Your task to perform on an android device: uninstall "Spotify: Music and Podcasts" Image 0: 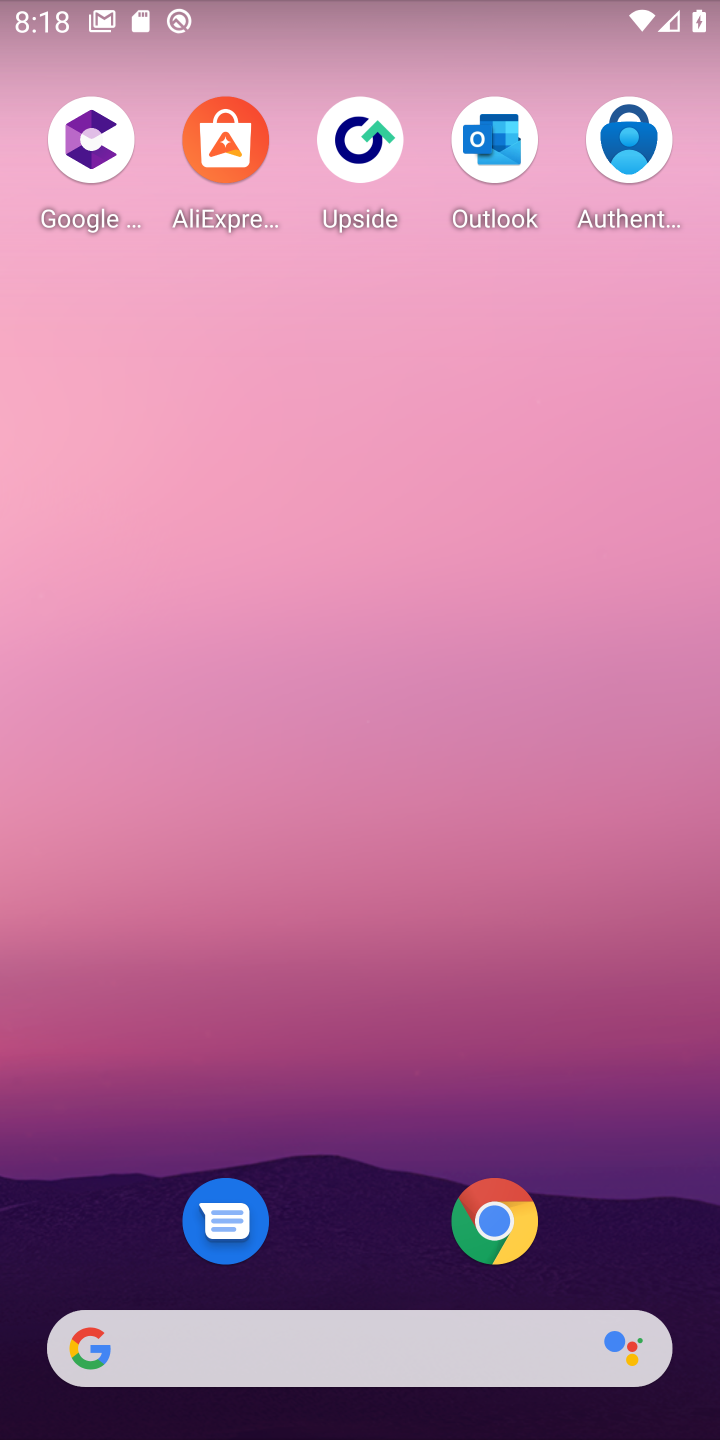
Step 0: drag from (399, 1223) to (399, 169)
Your task to perform on an android device: uninstall "Spotify: Music and Podcasts" Image 1: 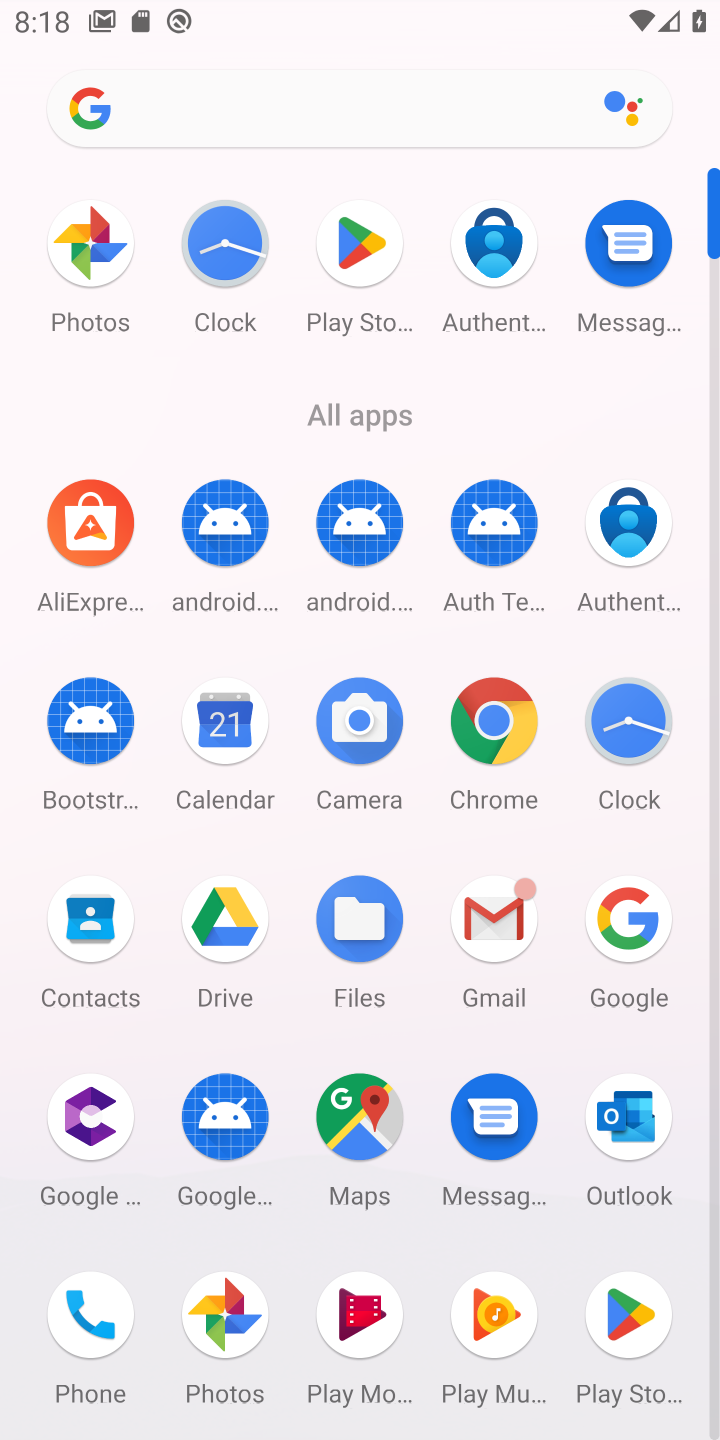
Step 1: click (634, 1318)
Your task to perform on an android device: uninstall "Spotify: Music and Podcasts" Image 2: 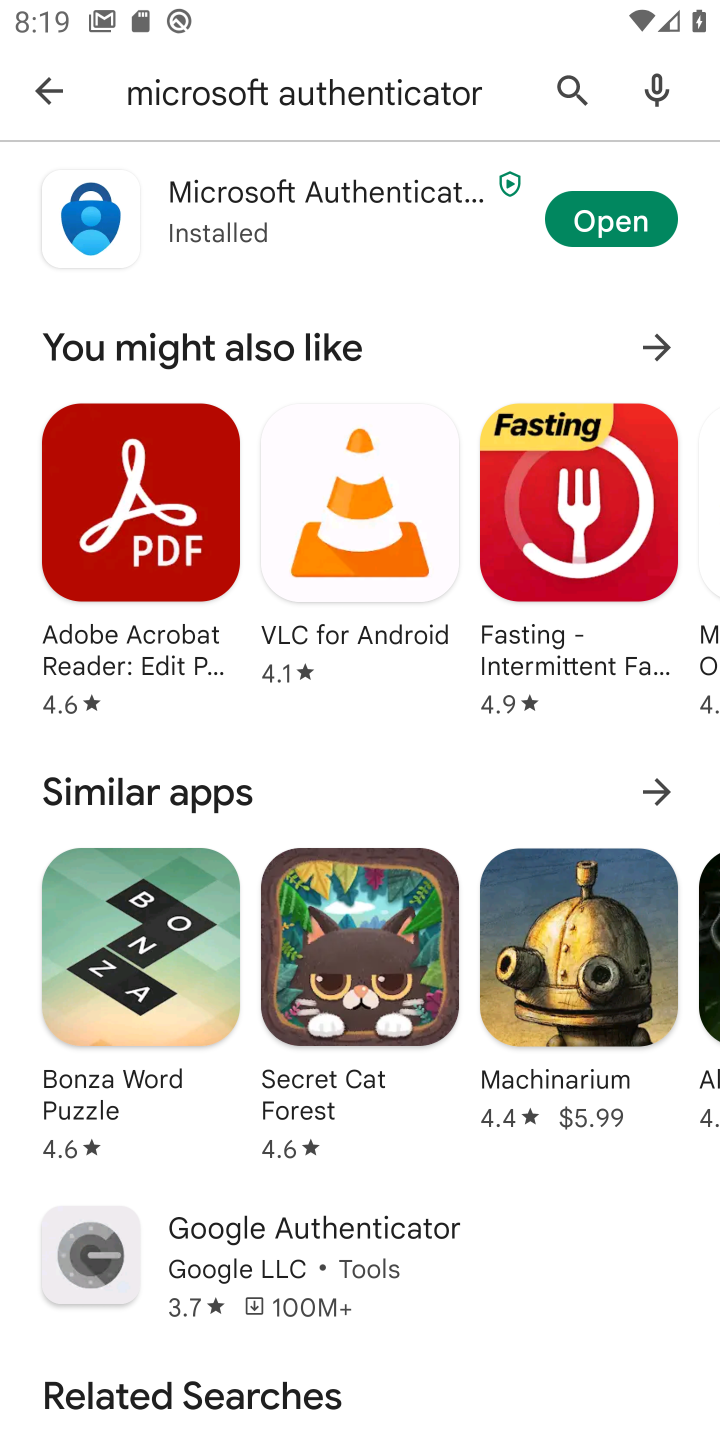
Step 2: click (570, 81)
Your task to perform on an android device: uninstall "Spotify: Music and Podcasts" Image 3: 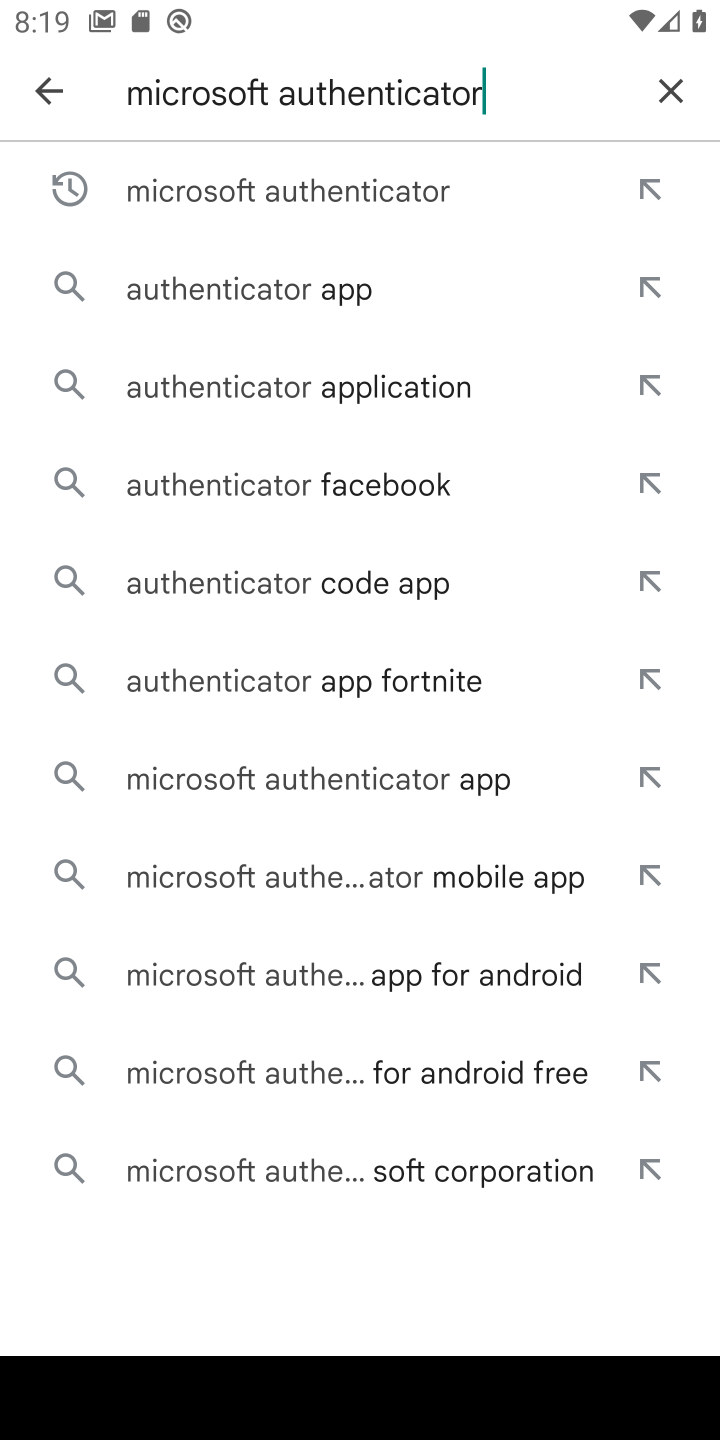
Step 3: click (676, 80)
Your task to perform on an android device: uninstall "Spotify: Music and Podcasts" Image 4: 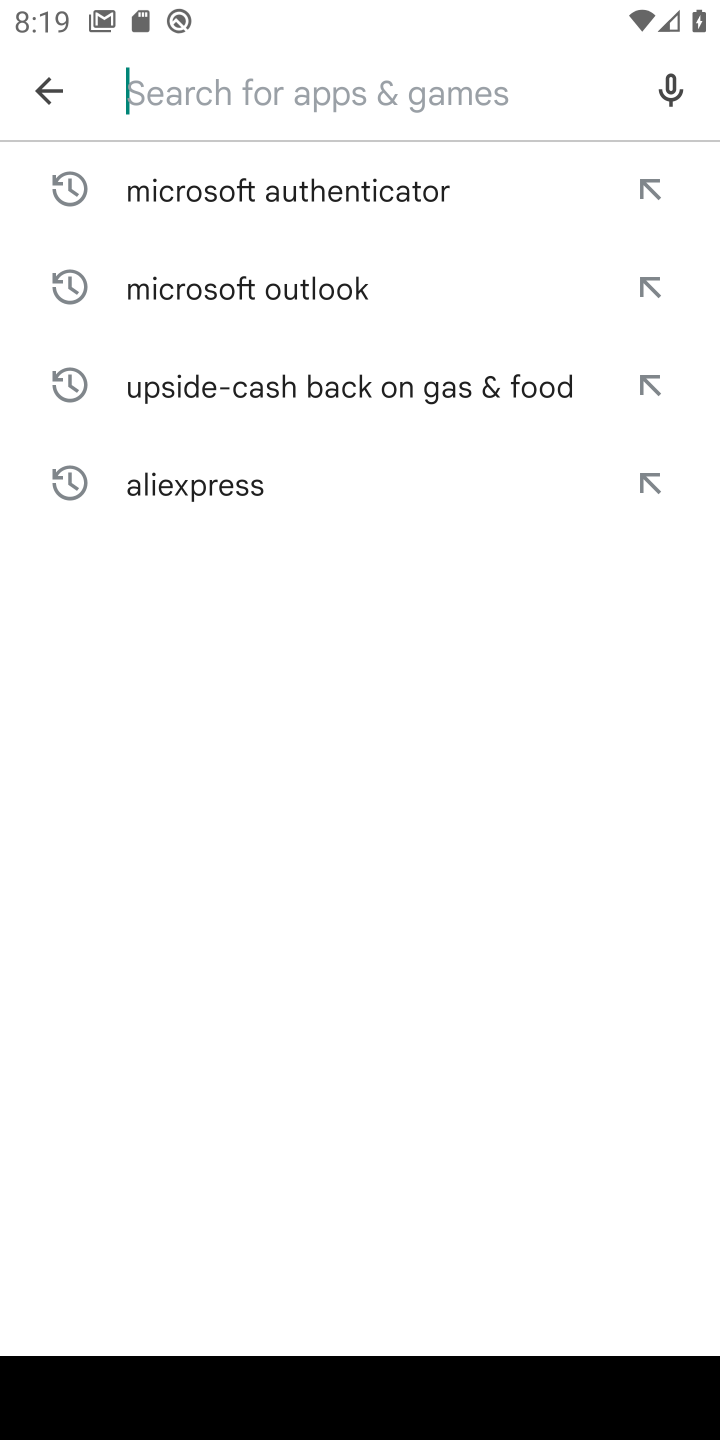
Step 4: type "Spotify: Music and Podcasts"
Your task to perform on an android device: uninstall "Spotify: Music and Podcasts" Image 5: 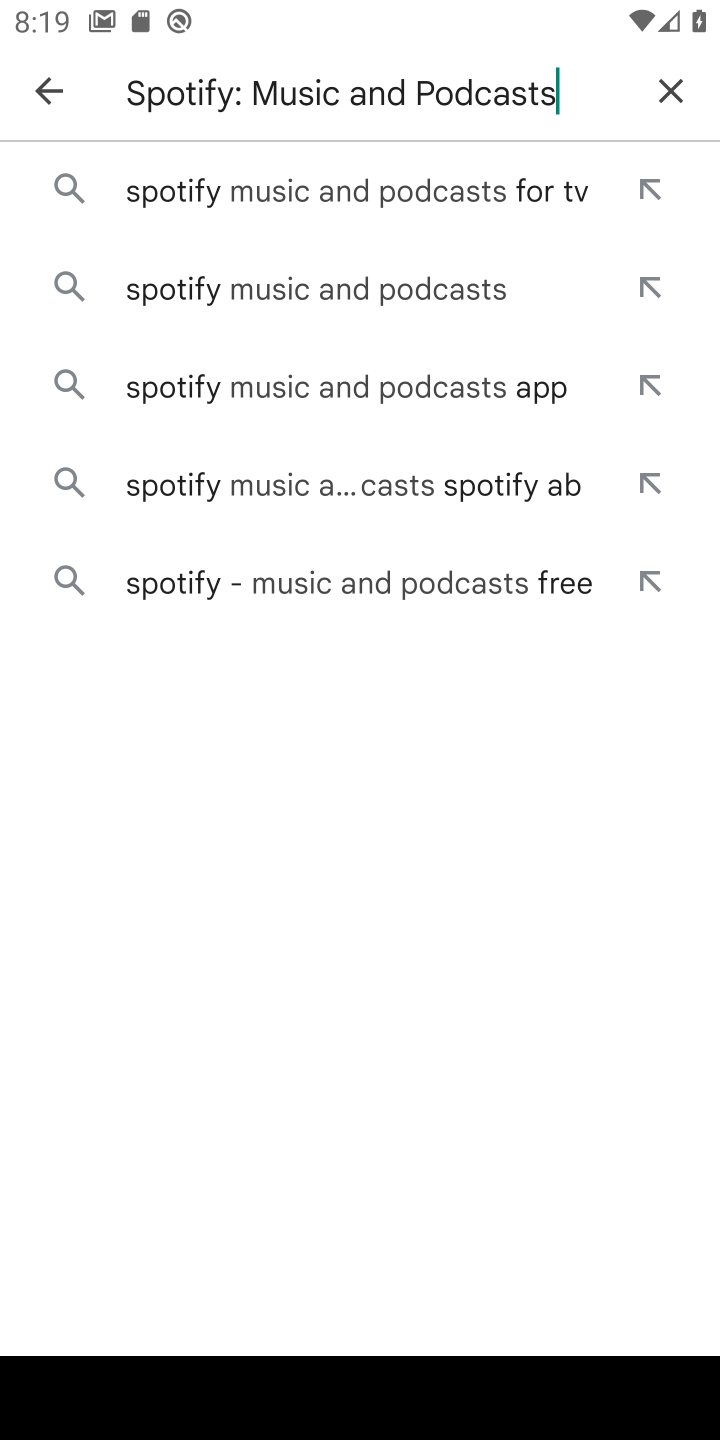
Step 5: click (395, 283)
Your task to perform on an android device: uninstall "Spotify: Music and Podcasts" Image 6: 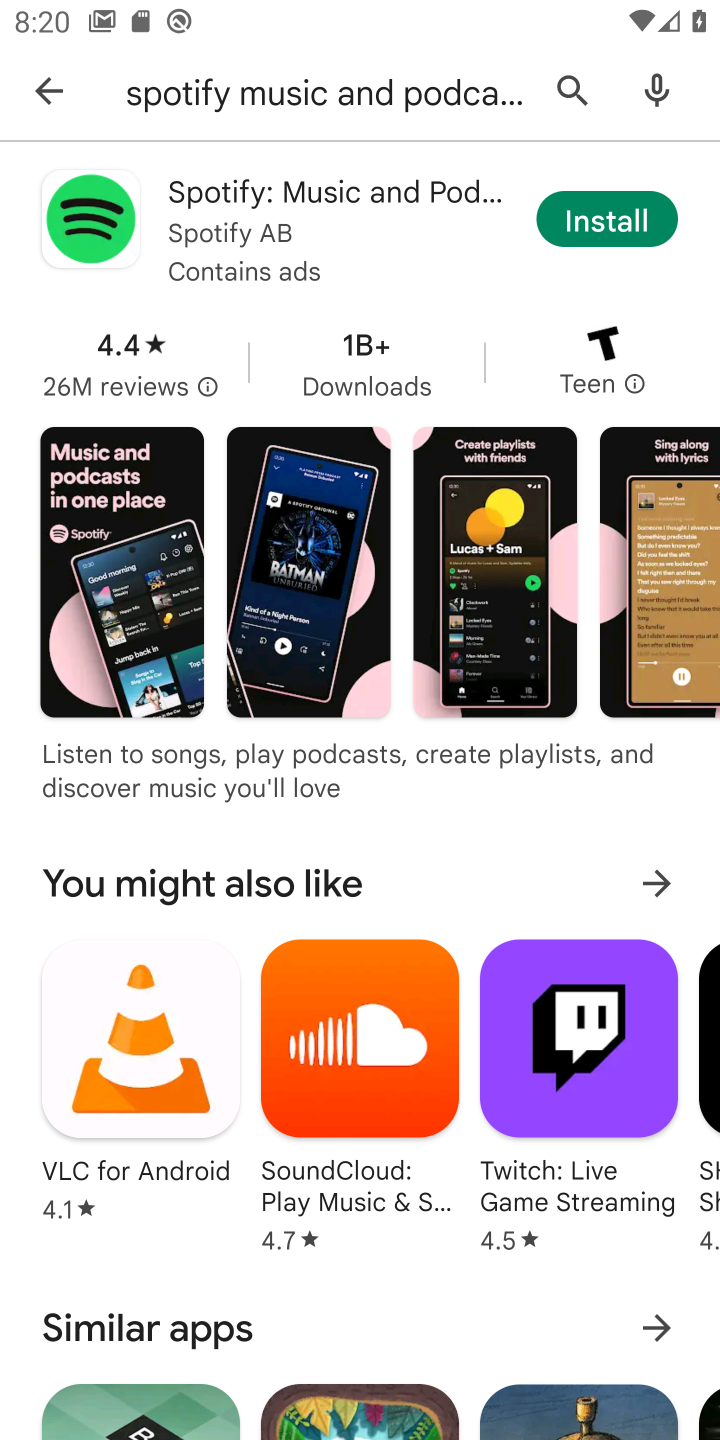
Step 6: task complete